Your task to perform on an android device: delete the emails in spam in the gmail app Image 0: 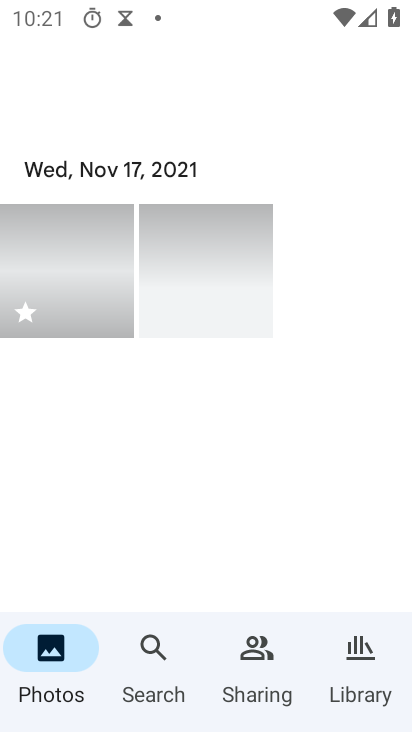
Step 0: drag from (168, 509) to (156, 197)
Your task to perform on an android device: delete the emails in spam in the gmail app Image 1: 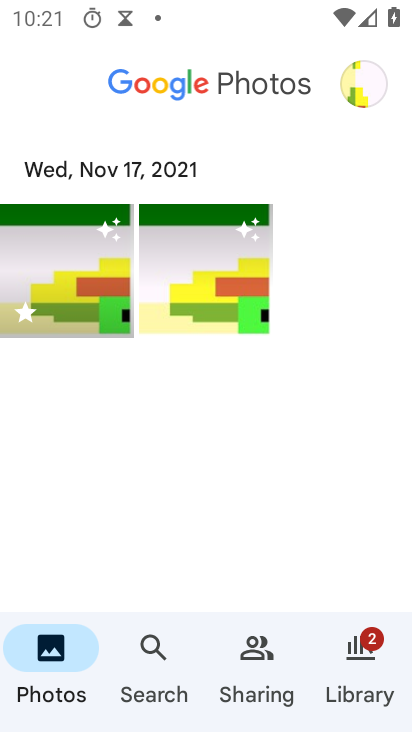
Step 1: press home button
Your task to perform on an android device: delete the emails in spam in the gmail app Image 2: 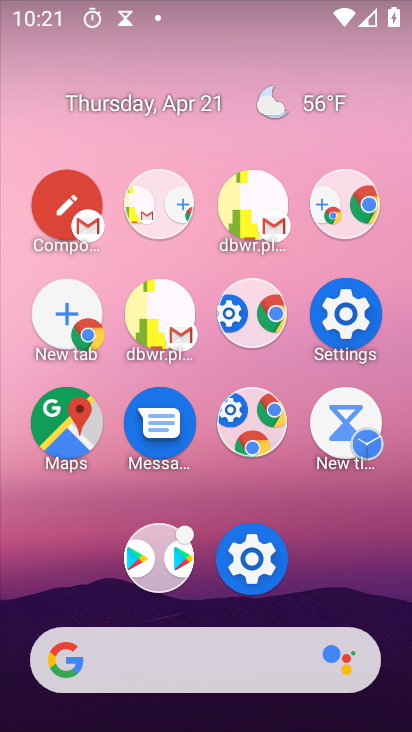
Step 2: drag from (318, 525) to (115, 134)
Your task to perform on an android device: delete the emails in spam in the gmail app Image 3: 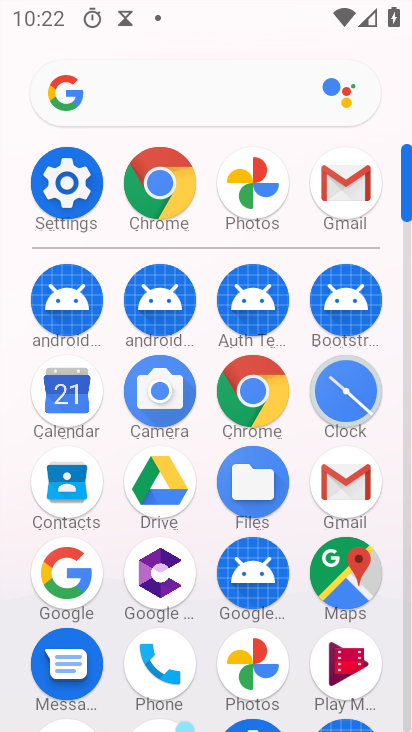
Step 3: click (352, 477)
Your task to perform on an android device: delete the emails in spam in the gmail app Image 4: 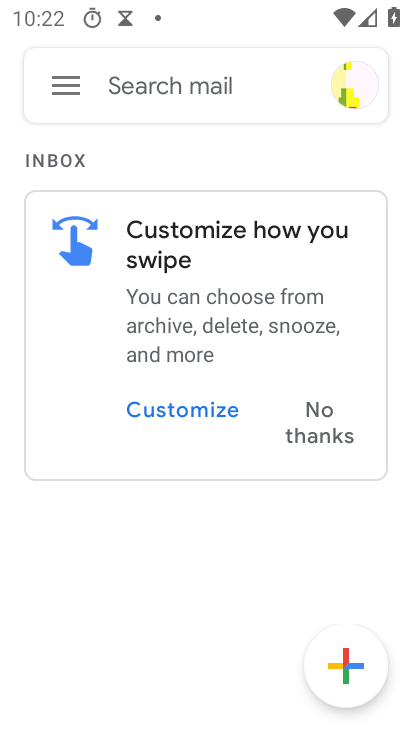
Step 4: click (69, 88)
Your task to perform on an android device: delete the emails in spam in the gmail app Image 5: 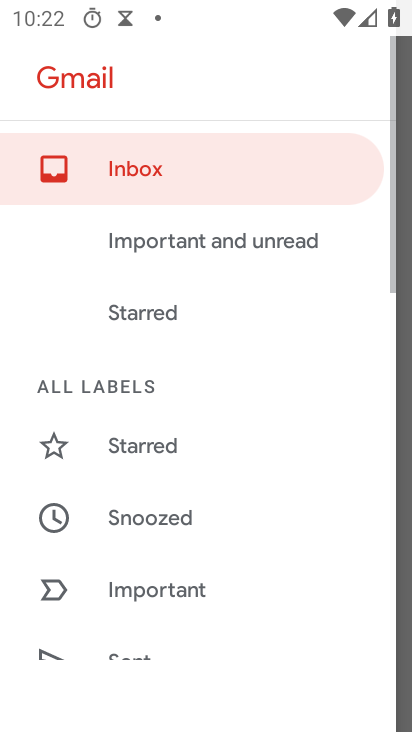
Step 5: drag from (234, 546) to (187, 156)
Your task to perform on an android device: delete the emails in spam in the gmail app Image 6: 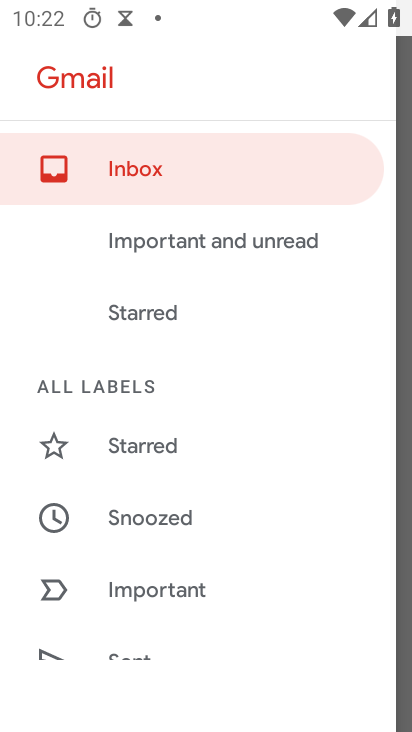
Step 6: drag from (195, 557) to (145, 229)
Your task to perform on an android device: delete the emails in spam in the gmail app Image 7: 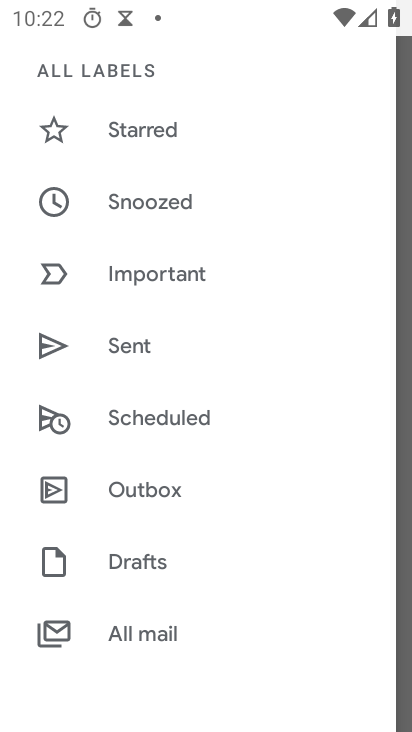
Step 7: drag from (222, 529) to (208, 185)
Your task to perform on an android device: delete the emails in spam in the gmail app Image 8: 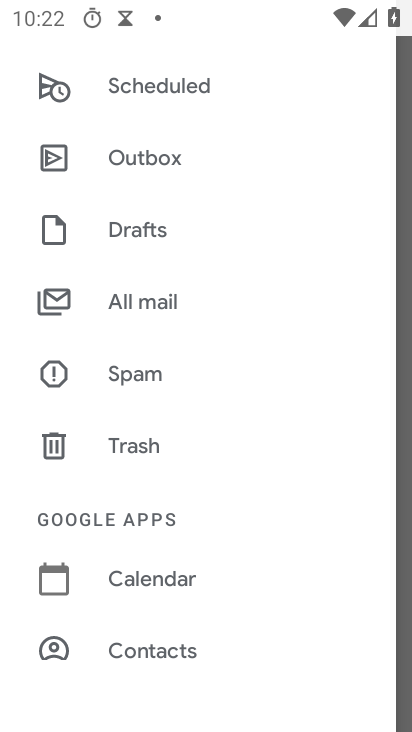
Step 8: drag from (204, 609) to (205, 214)
Your task to perform on an android device: delete the emails in spam in the gmail app Image 9: 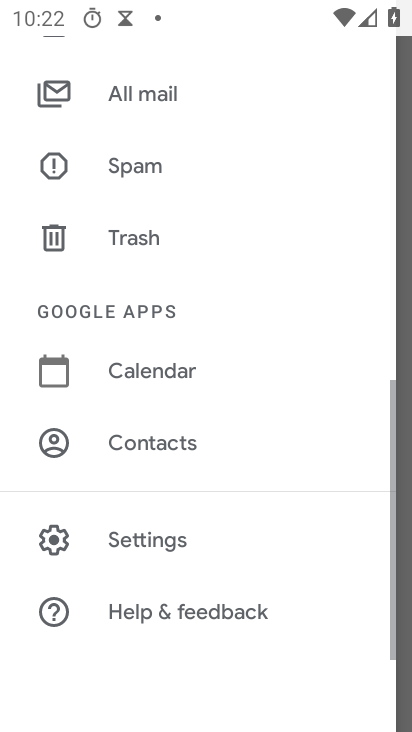
Step 9: click (153, 532)
Your task to perform on an android device: delete the emails in spam in the gmail app Image 10: 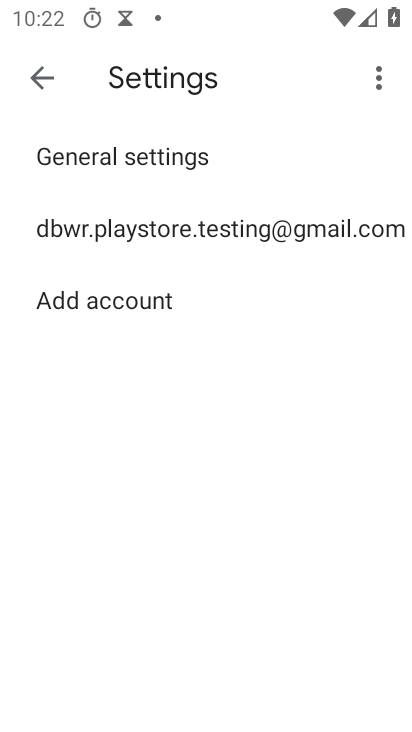
Step 10: click (36, 73)
Your task to perform on an android device: delete the emails in spam in the gmail app Image 11: 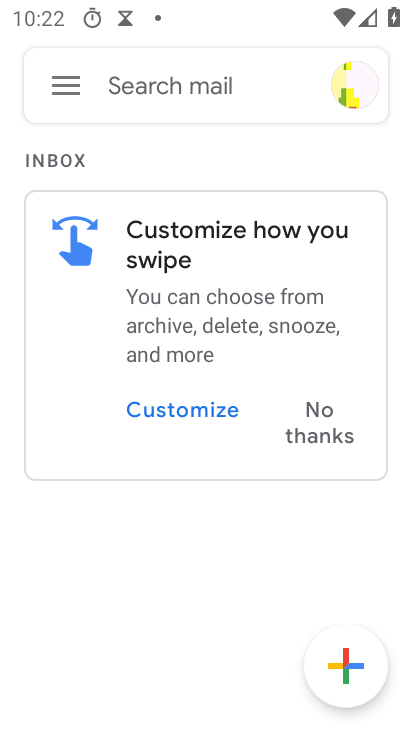
Step 11: drag from (65, 84) to (91, 390)
Your task to perform on an android device: delete the emails in spam in the gmail app Image 12: 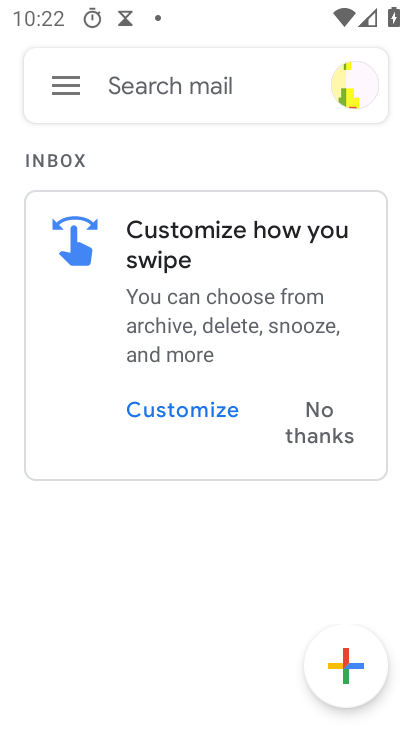
Step 12: click (67, 76)
Your task to perform on an android device: delete the emails in spam in the gmail app Image 13: 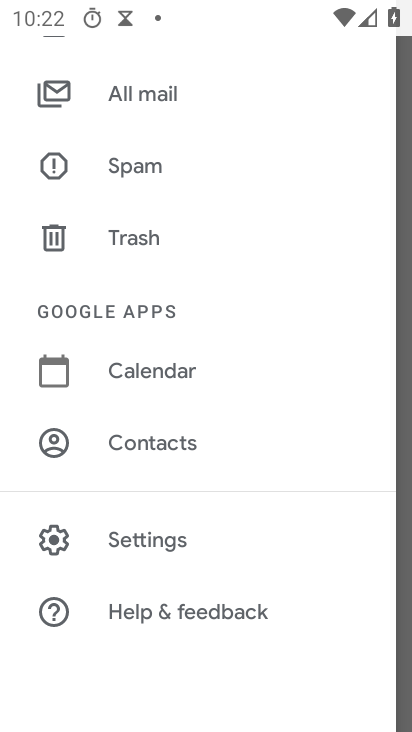
Step 13: click (129, 160)
Your task to perform on an android device: delete the emails in spam in the gmail app Image 14: 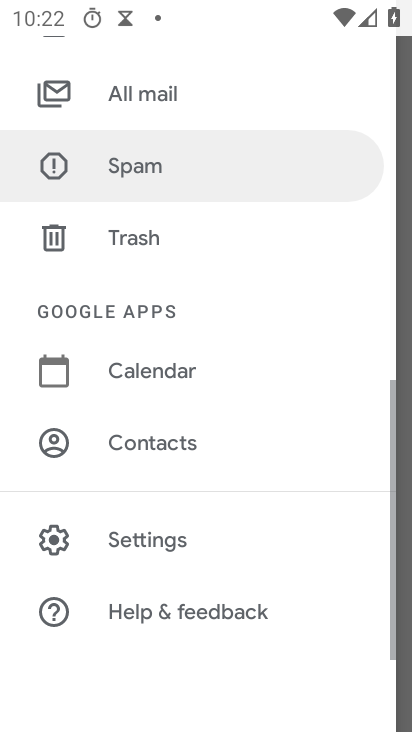
Step 14: click (129, 160)
Your task to perform on an android device: delete the emails in spam in the gmail app Image 15: 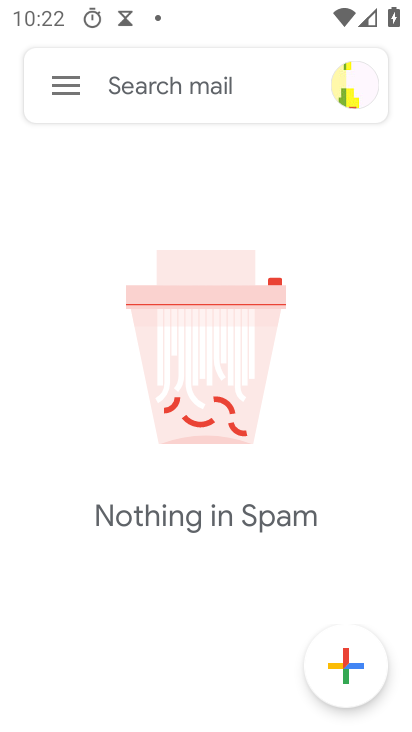
Step 15: task complete